Your task to perform on an android device: toggle data saver in the chrome app Image 0: 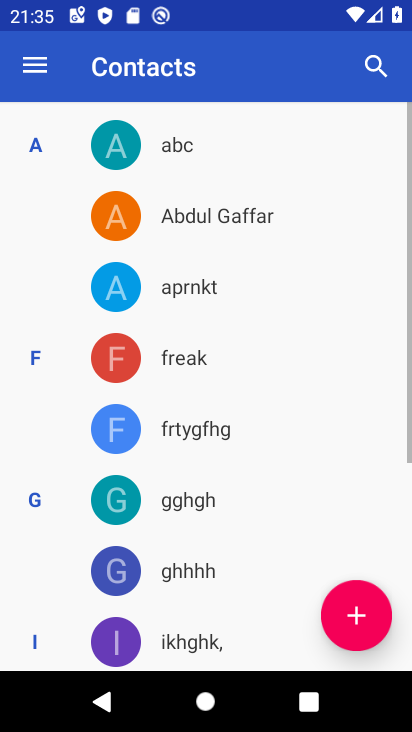
Step 0: press home button
Your task to perform on an android device: toggle data saver in the chrome app Image 1: 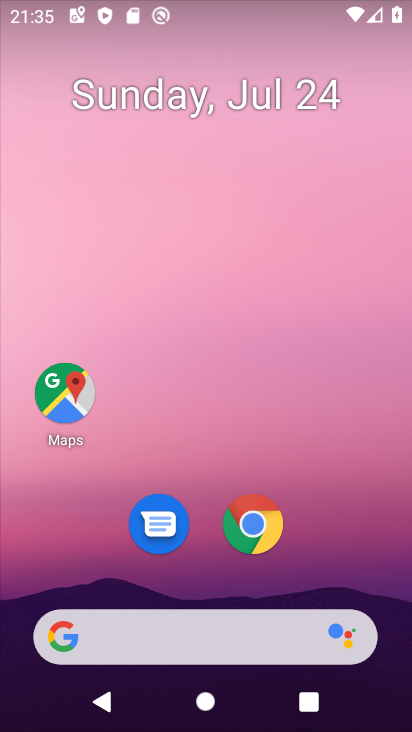
Step 1: click (250, 526)
Your task to perform on an android device: toggle data saver in the chrome app Image 2: 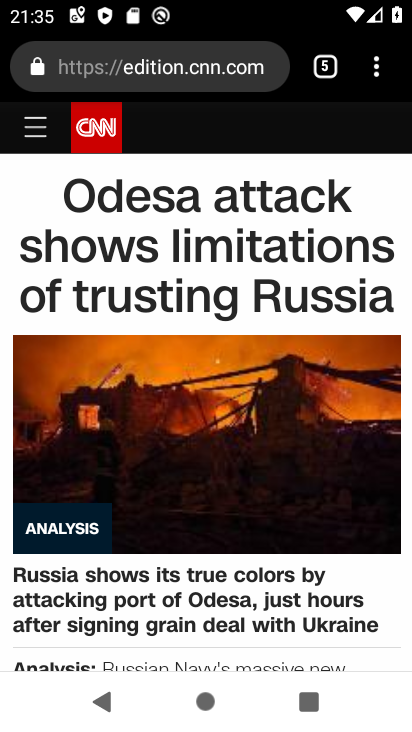
Step 2: drag from (377, 70) to (300, 532)
Your task to perform on an android device: toggle data saver in the chrome app Image 3: 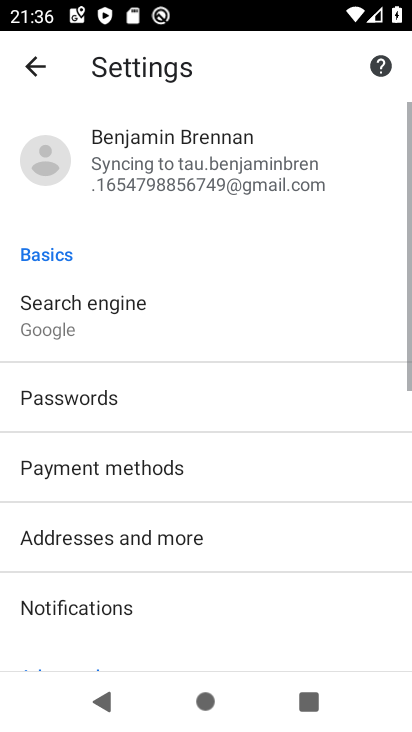
Step 3: drag from (248, 618) to (313, 196)
Your task to perform on an android device: toggle data saver in the chrome app Image 4: 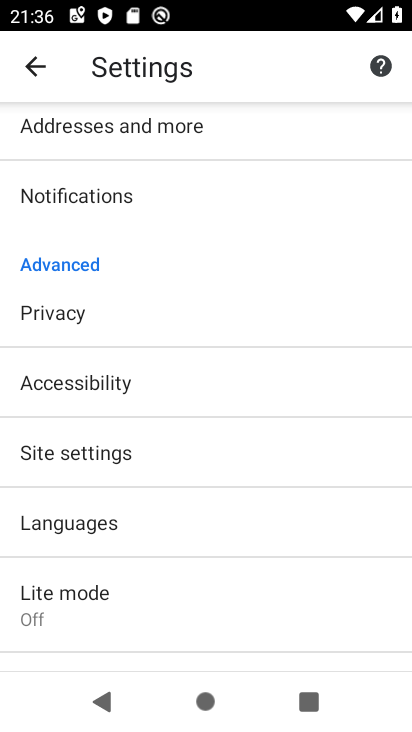
Step 4: click (119, 607)
Your task to perform on an android device: toggle data saver in the chrome app Image 5: 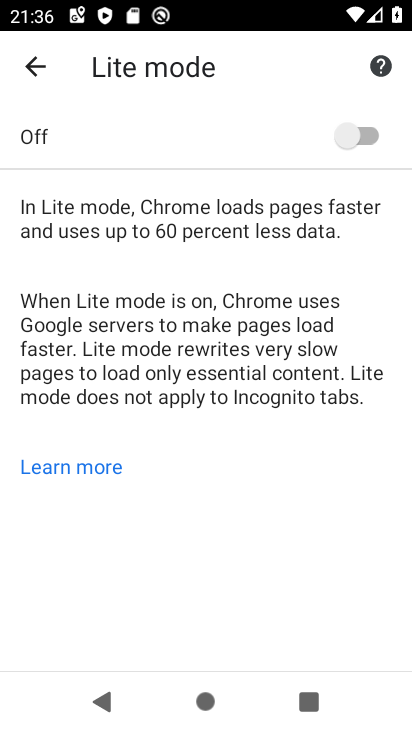
Step 5: click (367, 129)
Your task to perform on an android device: toggle data saver in the chrome app Image 6: 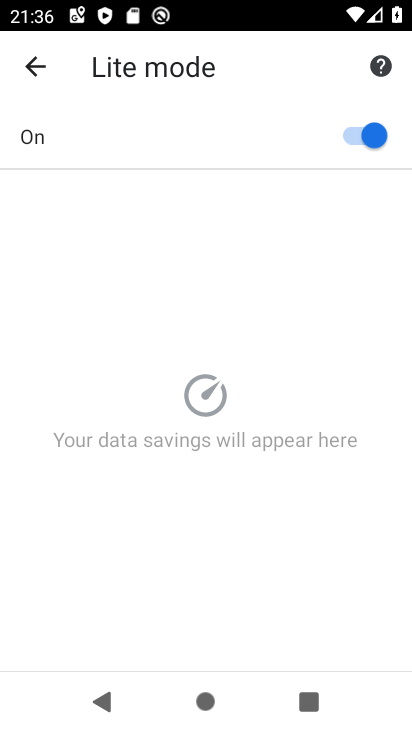
Step 6: task complete